Your task to perform on an android device: Open display settings Image 0: 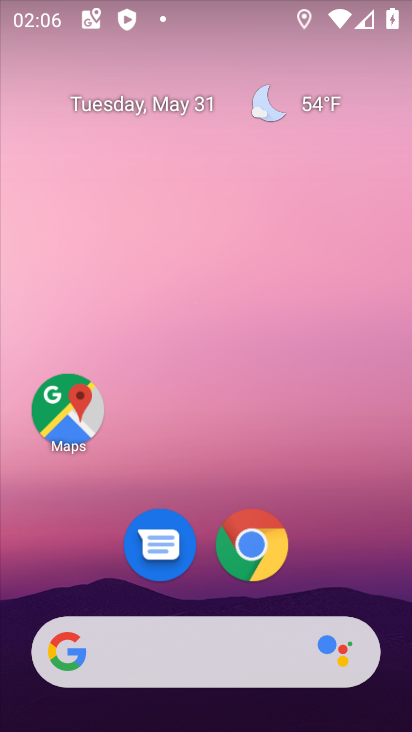
Step 0: drag from (361, 535) to (295, 3)
Your task to perform on an android device: Open display settings Image 1: 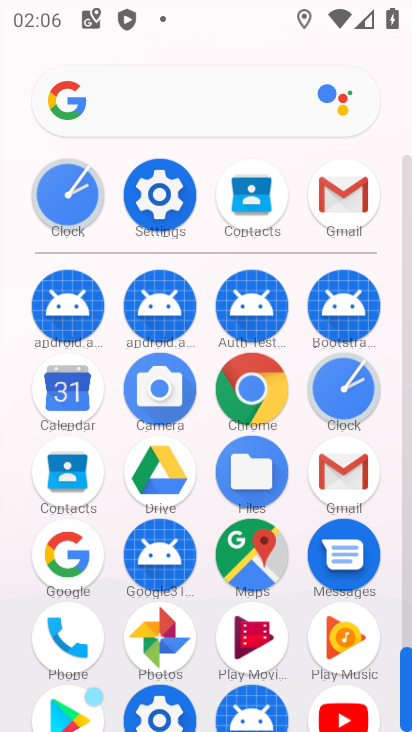
Step 1: click (164, 204)
Your task to perform on an android device: Open display settings Image 2: 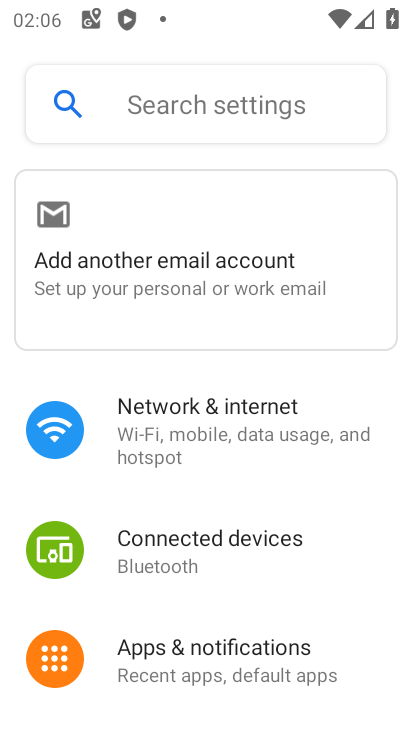
Step 2: drag from (316, 627) to (295, 146)
Your task to perform on an android device: Open display settings Image 3: 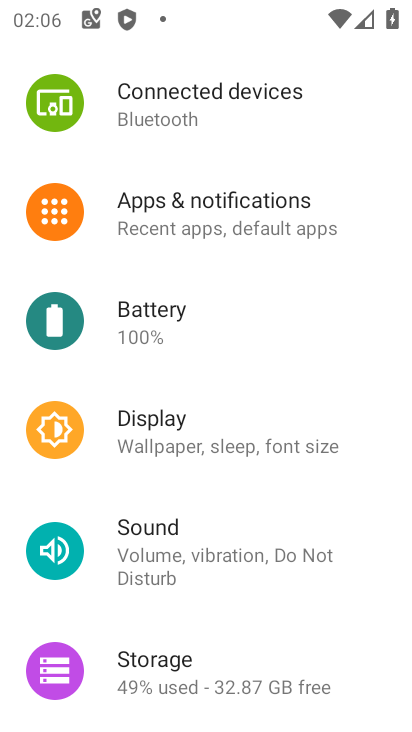
Step 3: click (199, 425)
Your task to perform on an android device: Open display settings Image 4: 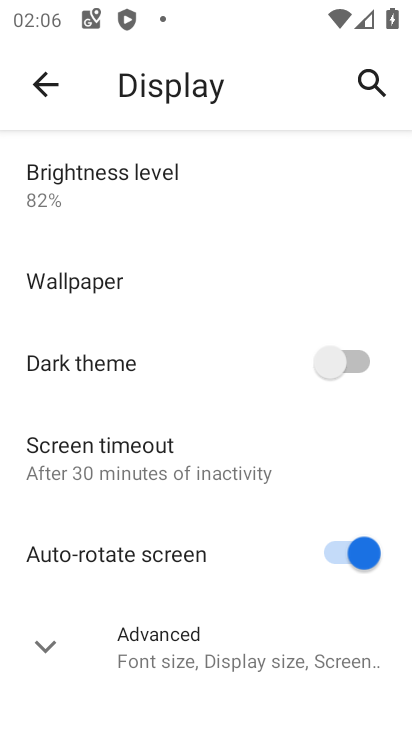
Step 4: task complete